Your task to perform on an android device: Search for flights from NYC to Paris Image 0: 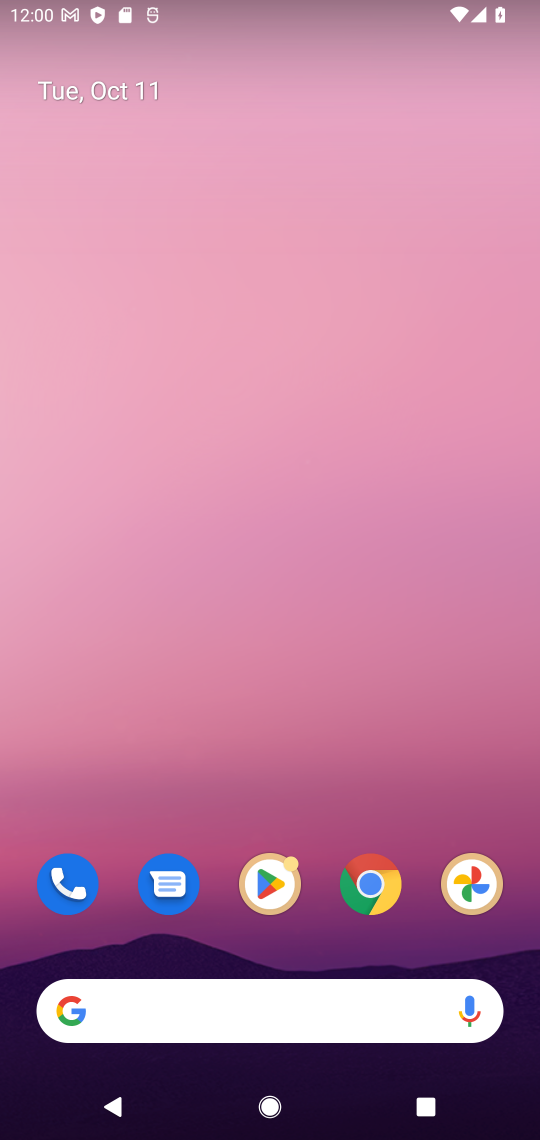
Step 0: drag from (232, 993) to (232, 350)
Your task to perform on an android device: Search for flights from NYC to Paris Image 1: 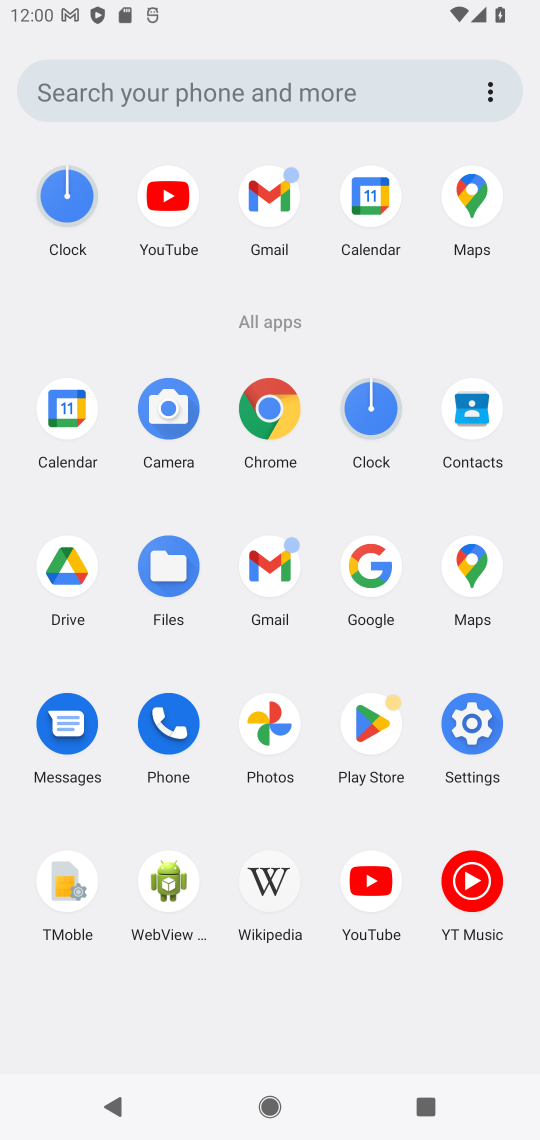
Step 1: click (374, 548)
Your task to perform on an android device: Search for flights from NYC to Paris Image 2: 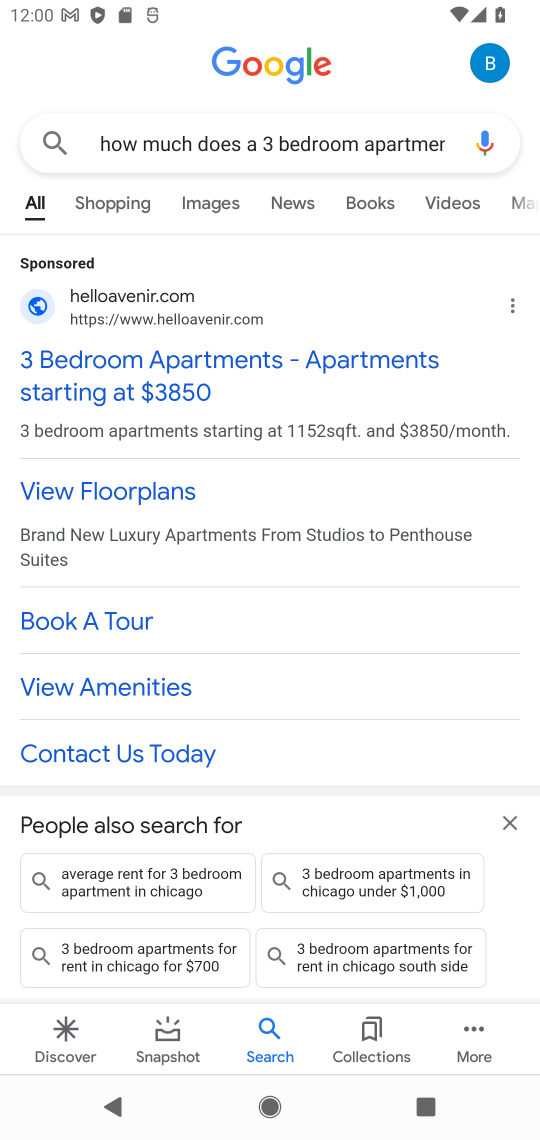
Step 2: click (290, 139)
Your task to perform on an android device: Search for flights from NYC to Paris Image 3: 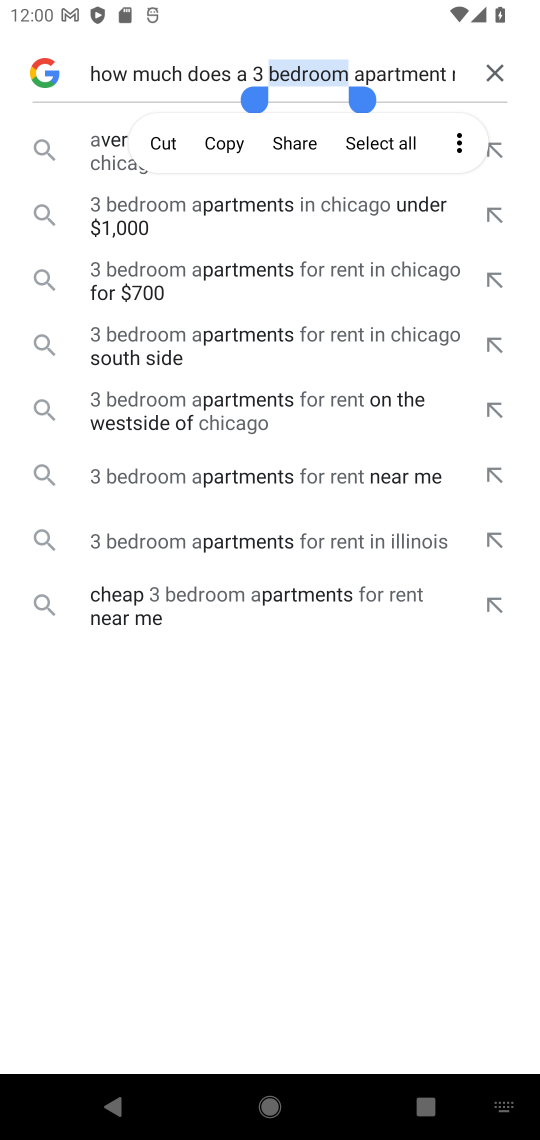
Step 3: click (500, 76)
Your task to perform on an android device: Search for flights from NYC to Paris Image 4: 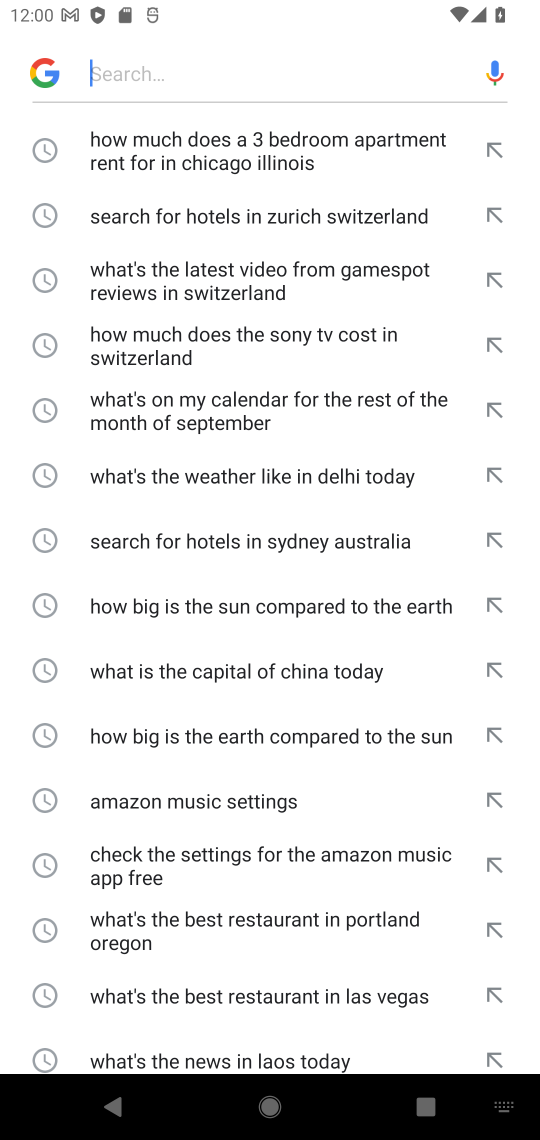
Step 4: type "Search for flights from NYC to Paris"
Your task to perform on an android device: Search for flights from NYC to Paris Image 5: 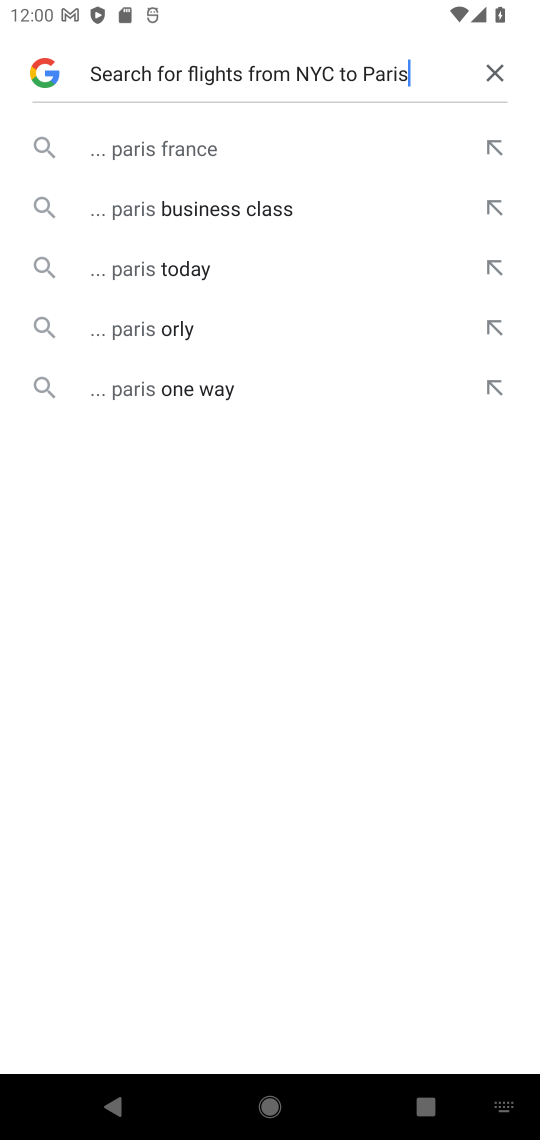
Step 5: click (182, 149)
Your task to perform on an android device: Search for flights from NYC to Paris Image 6: 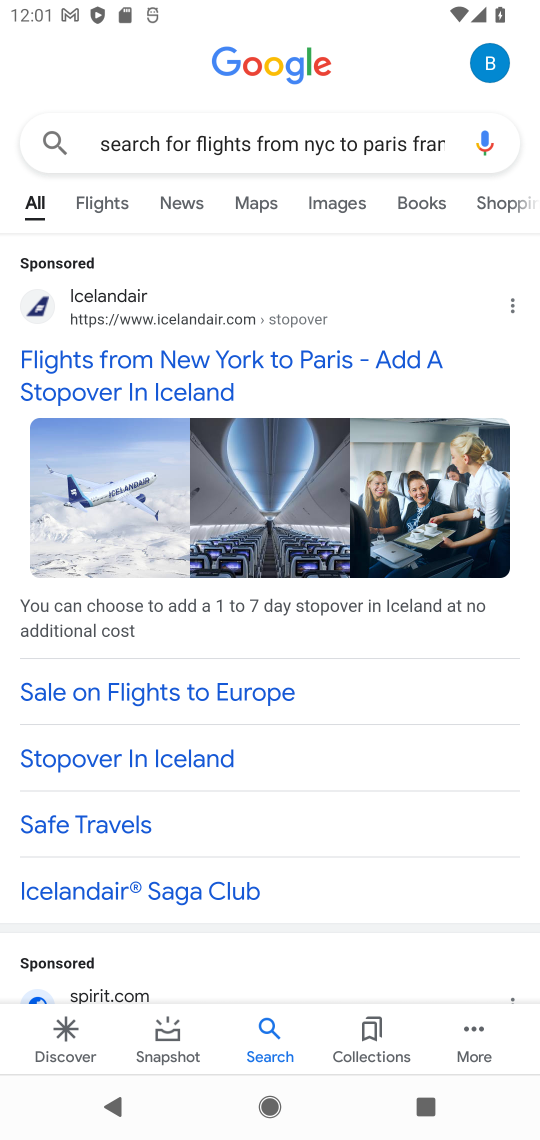
Step 6: click (301, 378)
Your task to perform on an android device: Search for flights from NYC to Paris Image 7: 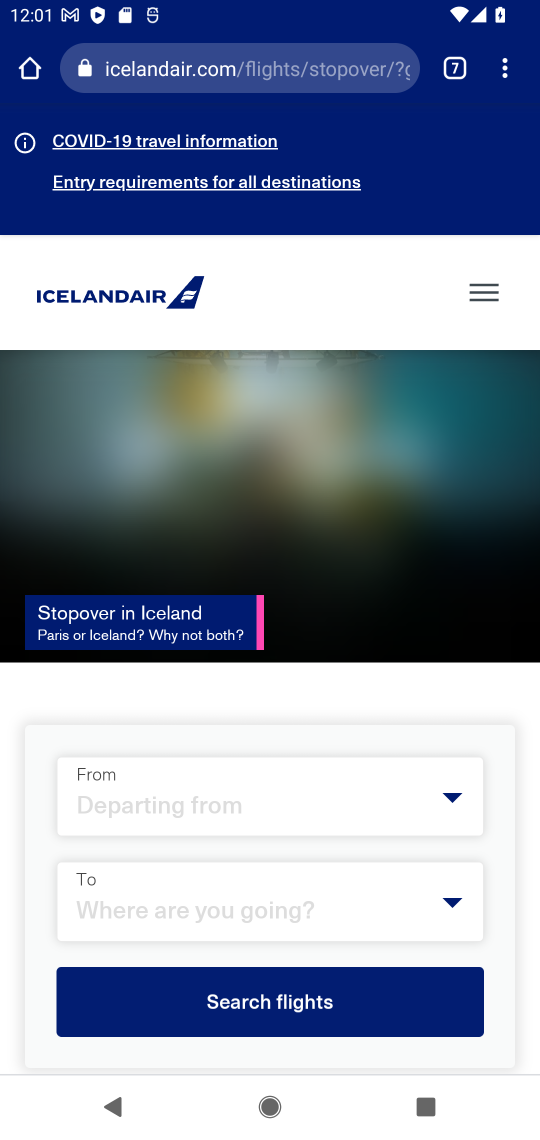
Step 7: task complete